Your task to perform on an android device: check storage Image 0: 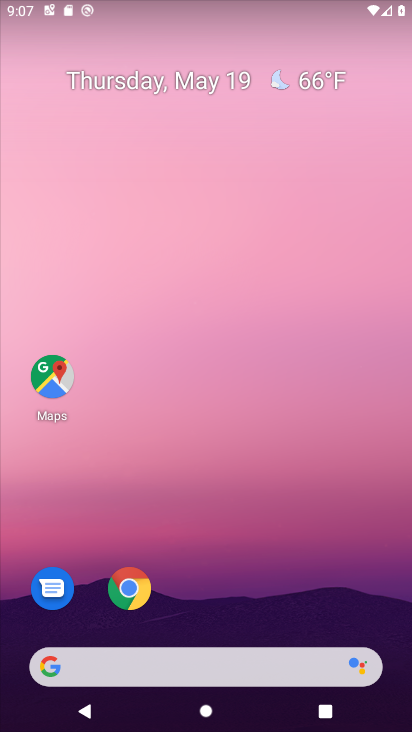
Step 0: drag from (361, 592) to (372, 200)
Your task to perform on an android device: check storage Image 1: 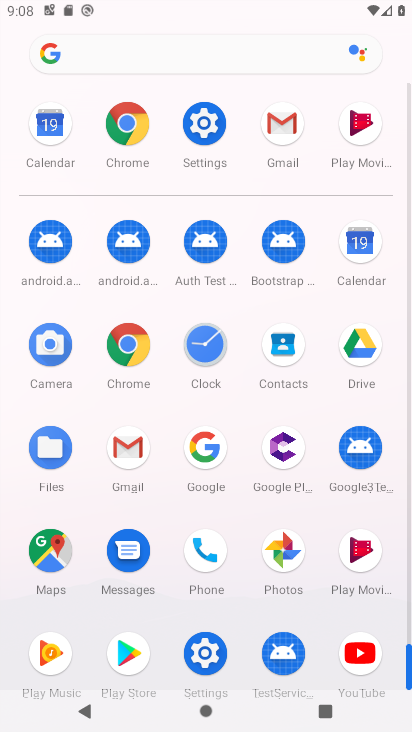
Step 1: click (218, 129)
Your task to perform on an android device: check storage Image 2: 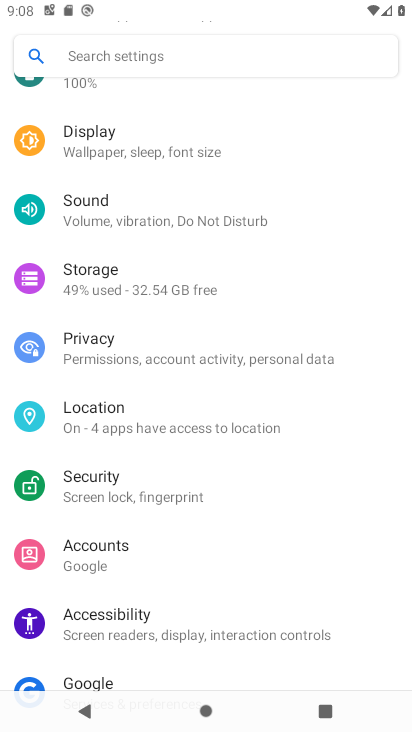
Step 2: drag from (340, 568) to (347, 374)
Your task to perform on an android device: check storage Image 3: 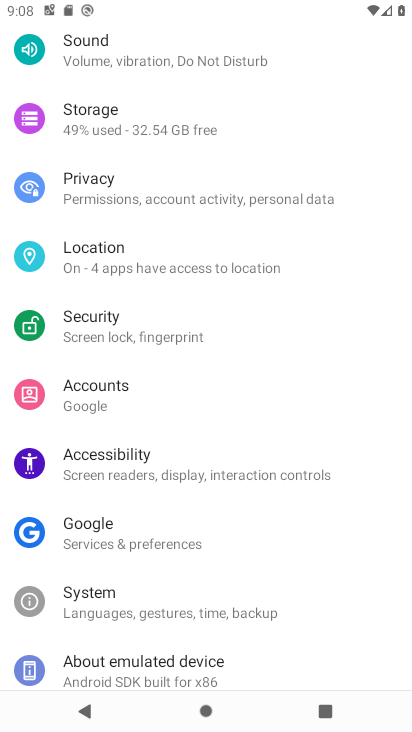
Step 3: drag from (365, 580) to (326, 400)
Your task to perform on an android device: check storage Image 4: 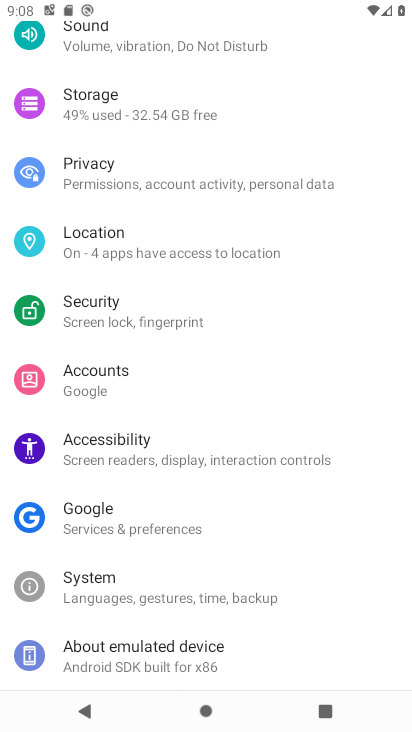
Step 4: drag from (340, 598) to (327, 443)
Your task to perform on an android device: check storage Image 5: 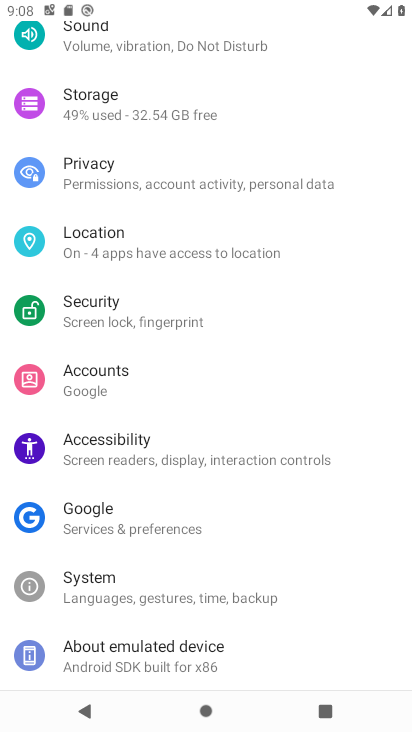
Step 5: drag from (348, 315) to (336, 462)
Your task to perform on an android device: check storage Image 6: 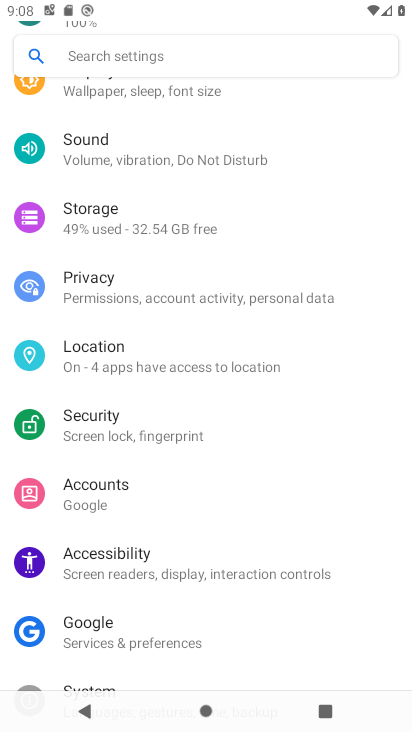
Step 6: drag from (364, 270) to (346, 460)
Your task to perform on an android device: check storage Image 7: 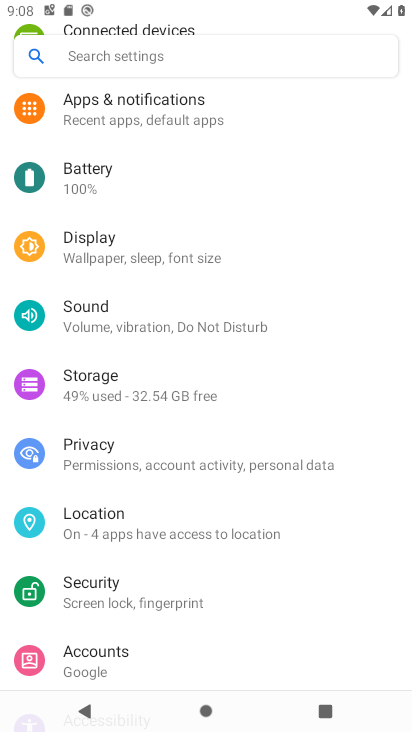
Step 7: drag from (359, 284) to (342, 451)
Your task to perform on an android device: check storage Image 8: 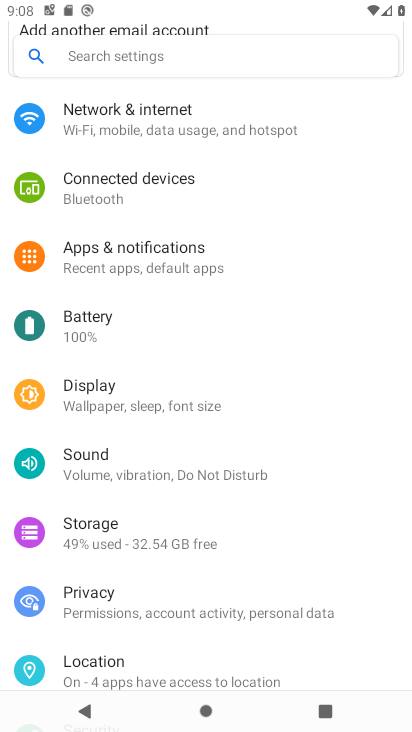
Step 8: drag from (334, 248) to (314, 411)
Your task to perform on an android device: check storage Image 9: 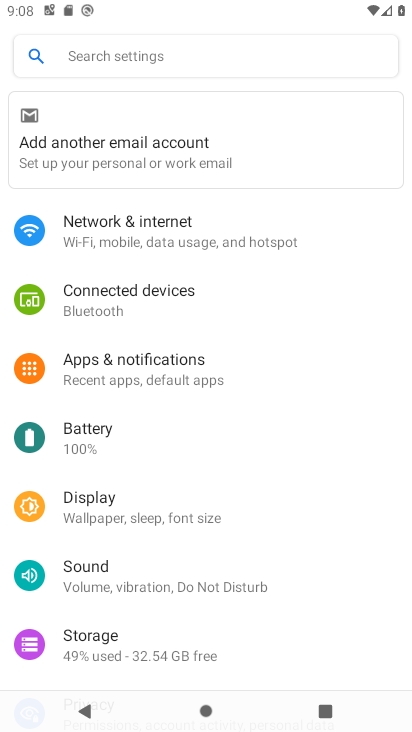
Step 9: drag from (346, 224) to (326, 408)
Your task to perform on an android device: check storage Image 10: 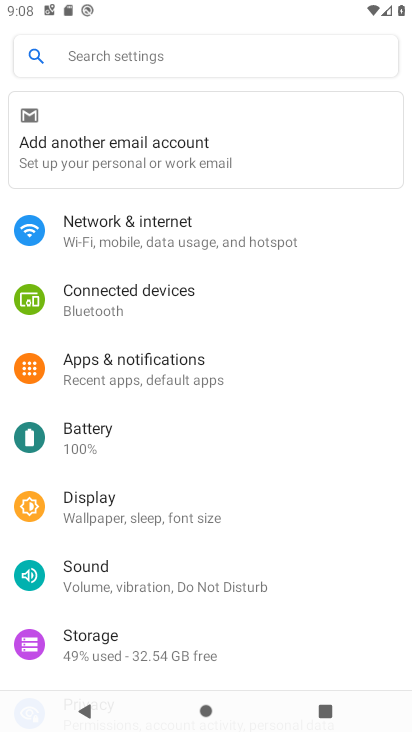
Step 10: drag from (322, 553) to (302, 356)
Your task to perform on an android device: check storage Image 11: 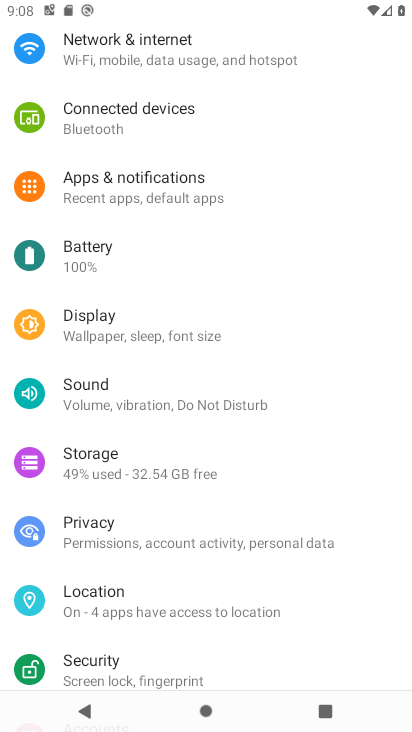
Step 11: click (179, 482)
Your task to perform on an android device: check storage Image 12: 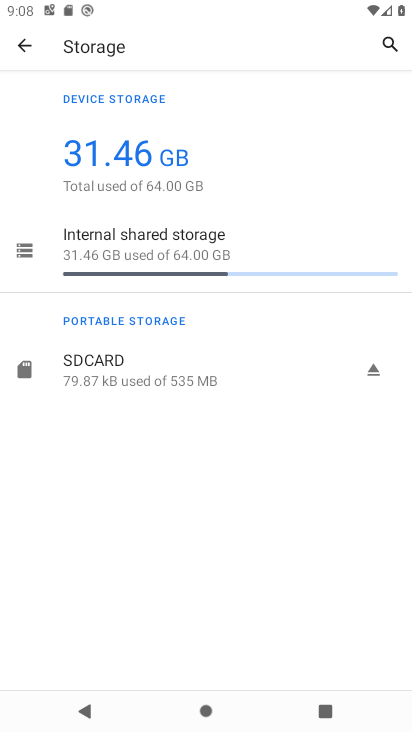
Step 12: task complete